Your task to perform on an android device: Open internet settings Image 0: 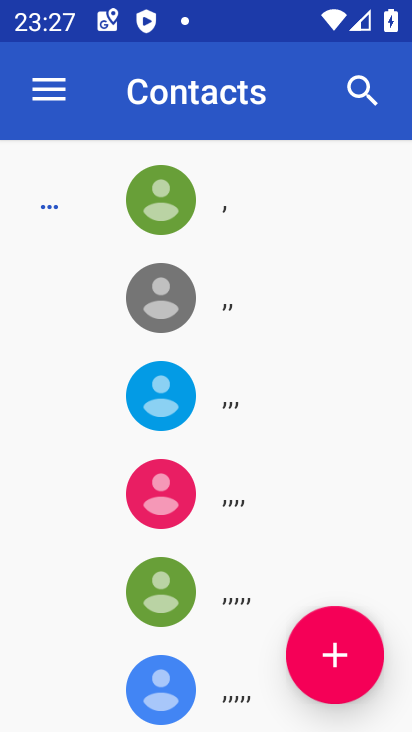
Step 0: press home button
Your task to perform on an android device: Open internet settings Image 1: 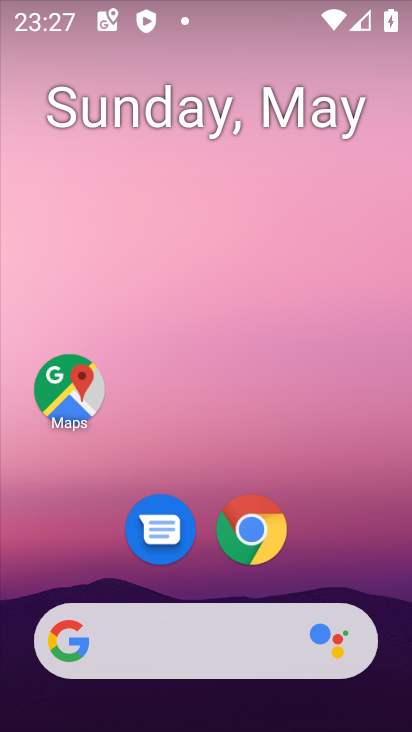
Step 1: drag from (343, 571) to (323, 205)
Your task to perform on an android device: Open internet settings Image 2: 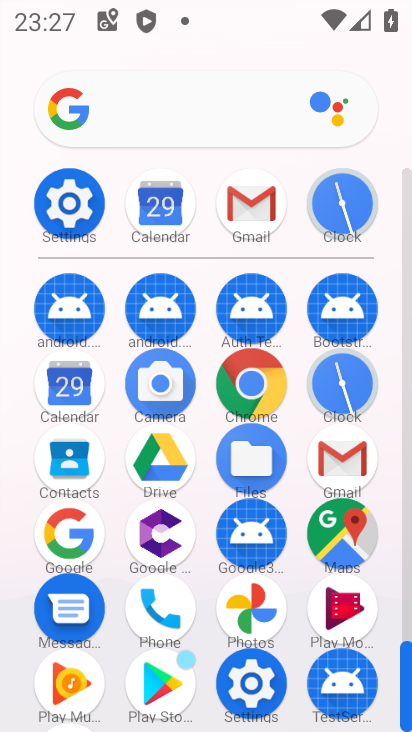
Step 2: click (95, 207)
Your task to perform on an android device: Open internet settings Image 3: 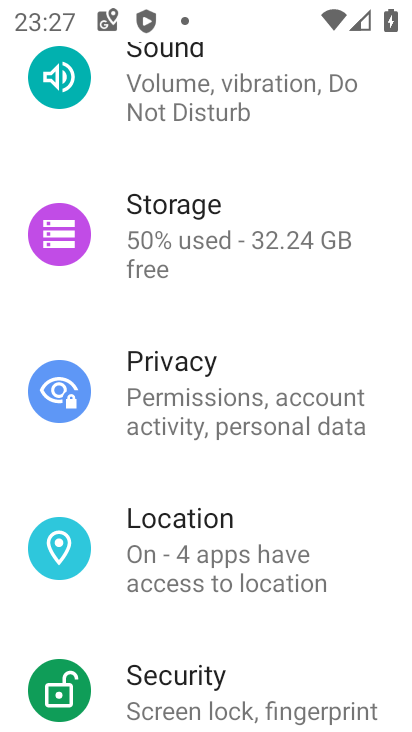
Step 3: drag from (234, 154) to (400, 609)
Your task to perform on an android device: Open internet settings Image 4: 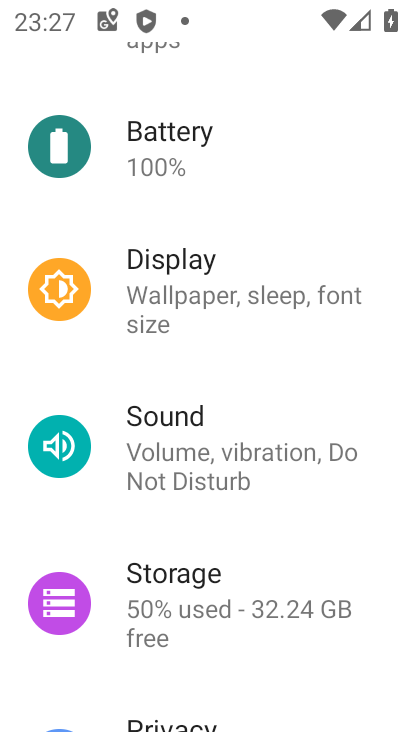
Step 4: drag from (269, 217) to (343, 699)
Your task to perform on an android device: Open internet settings Image 5: 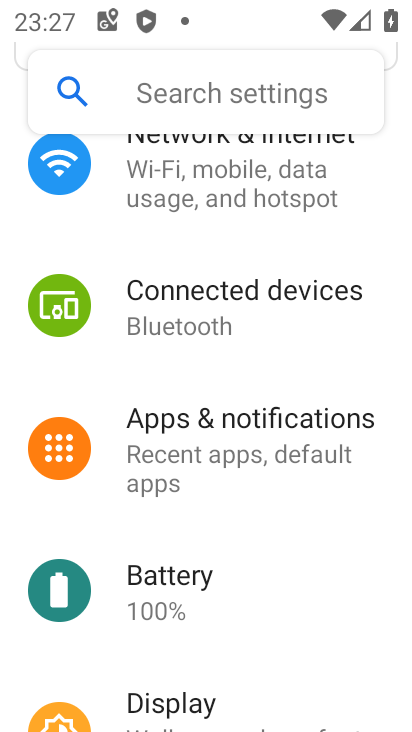
Step 5: click (271, 180)
Your task to perform on an android device: Open internet settings Image 6: 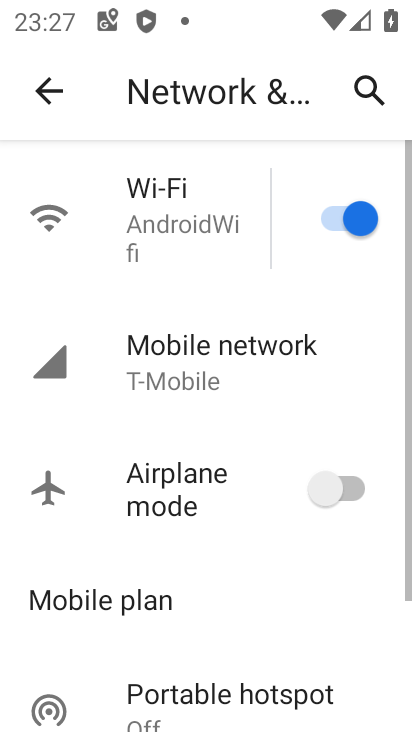
Step 6: task complete